Your task to perform on an android device: toggle notifications settings in the gmail app Image 0: 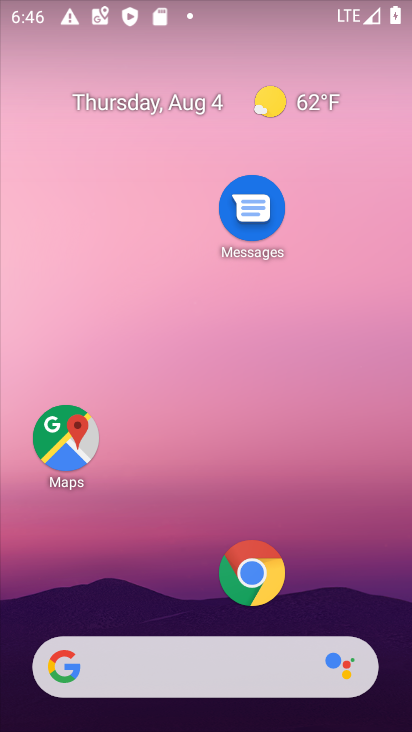
Step 0: press home button
Your task to perform on an android device: toggle notifications settings in the gmail app Image 1: 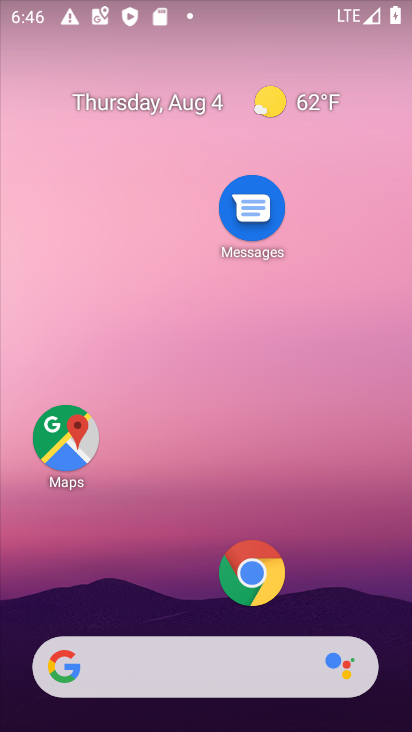
Step 1: drag from (189, 580) to (252, 195)
Your task to perform on an android device: toggle notifications settings in the gmail app Image 2: 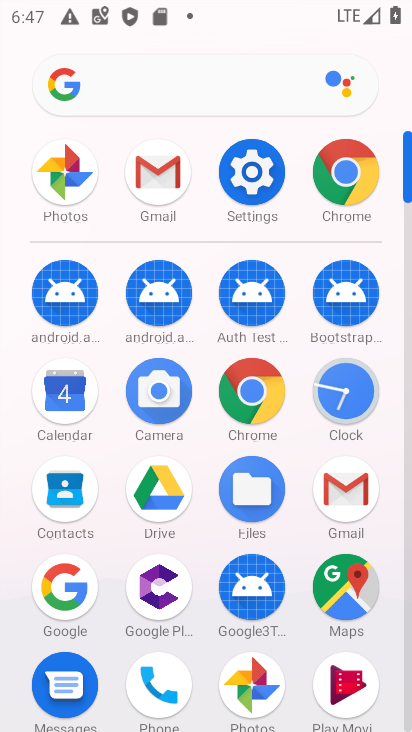
Step 2: click (141, 181)
Your task to perform on an android device: toggle notifications settings in the gmail app Image 3: 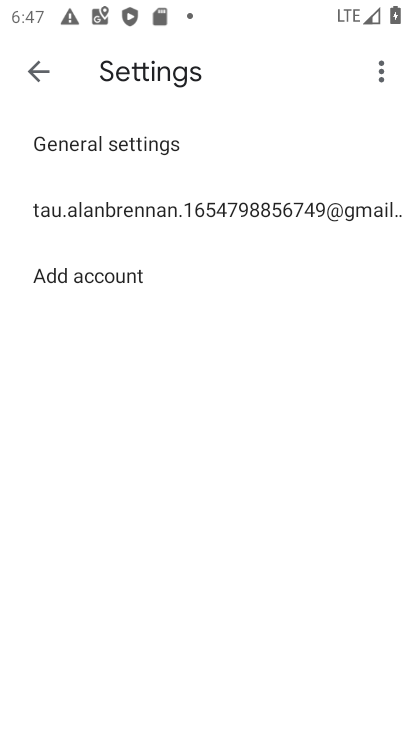
Step 3: click (153, 206)
Your task to perform on an android device: toggle notifications settings in the gmail app Image 4: 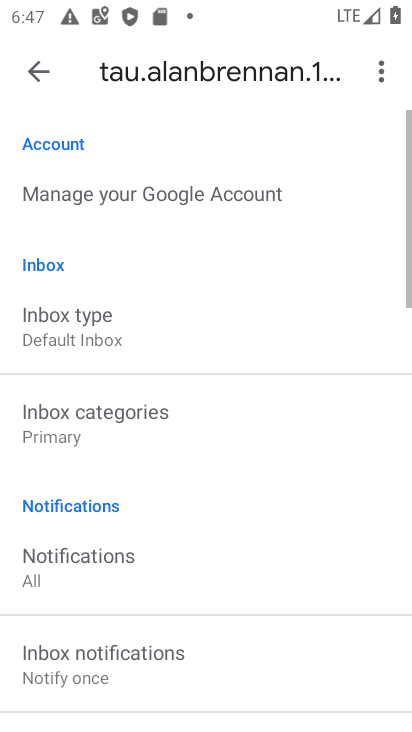
Step 4: drag from (269, 685) to (329, 260)
Your task to perform on an android device: toggle notifications settings in the gmail app Image 5: 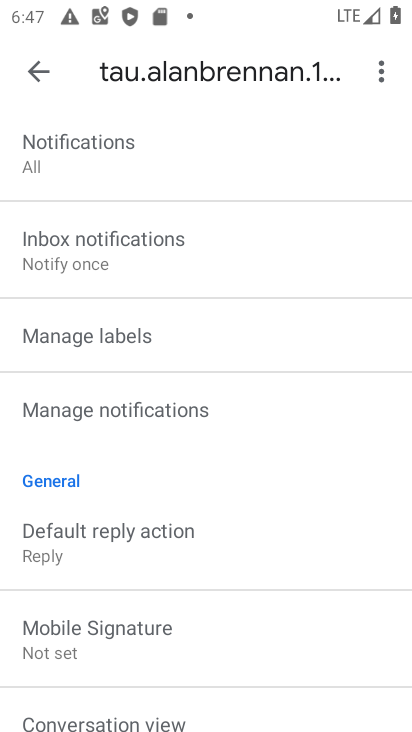
Step 5: click (102, 421)
Your task to perform on an android device: toggle notifications settings in the gmail app Image 6: 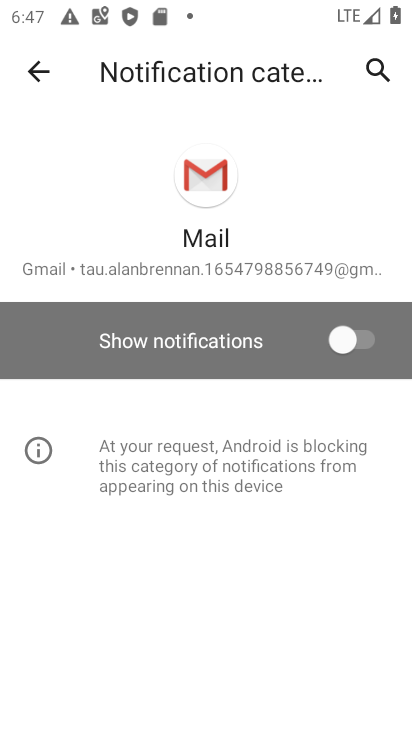
Step 6: click (338, 335)
Your task to perform on an android device: toggle notifications settings in the gmail app Image 7: 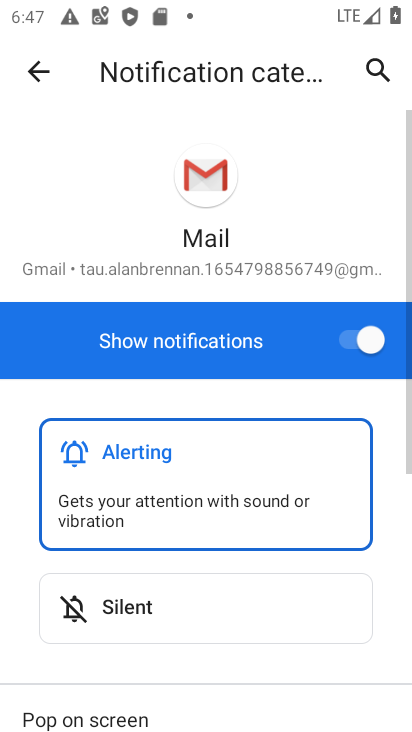
Step 7: task complete